Your task to perform on an android device: Show me some nice wallpapers for my tablet Image 0: 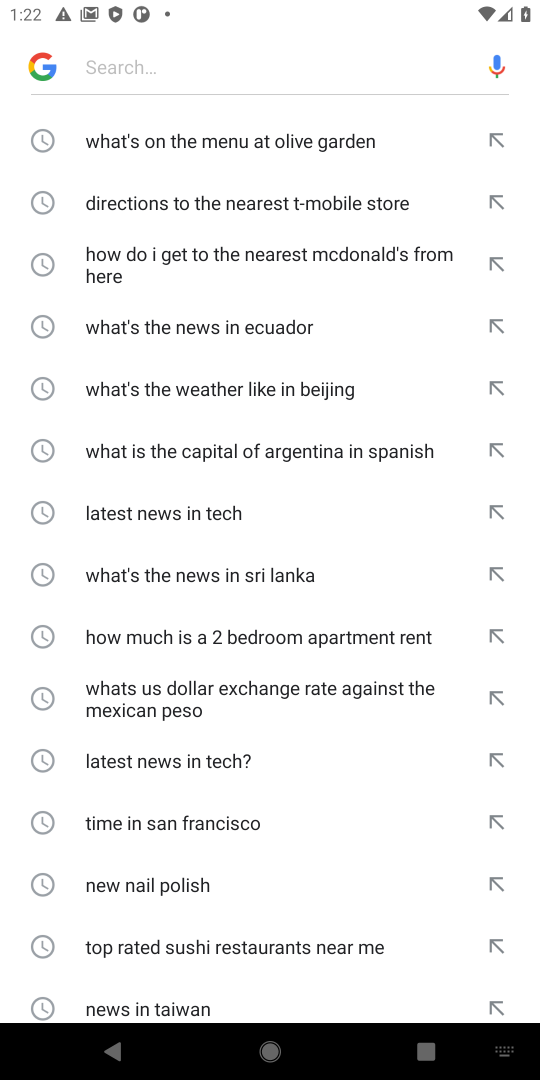
Step 0: click (302, 114)
Your task to perform on an android device: Show me some nice wallpapers for my tablet Image 1: 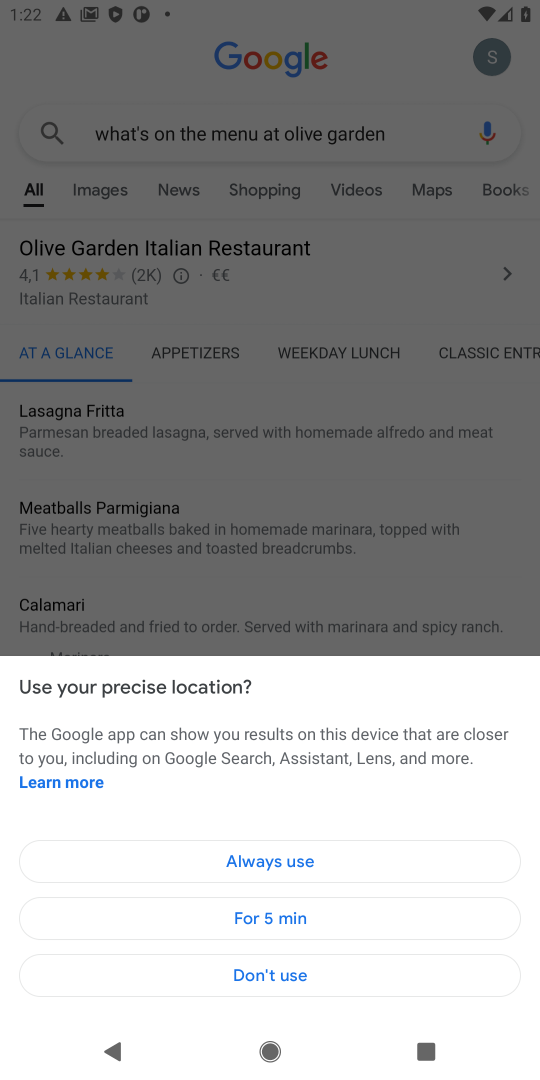
Step 1: press home button
Your task to perform on an android device: Show me some nice wallpapers for my tablet Image 2: 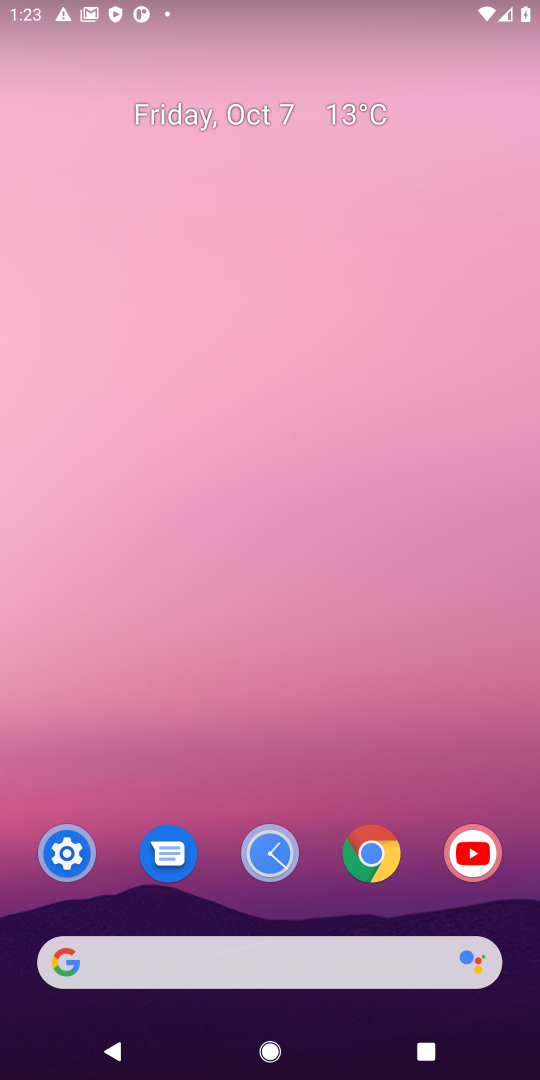
Step 2: click (350, 951)
Your task to perform on an android device: Show me some nice wallpapers for my tablet Image 3: 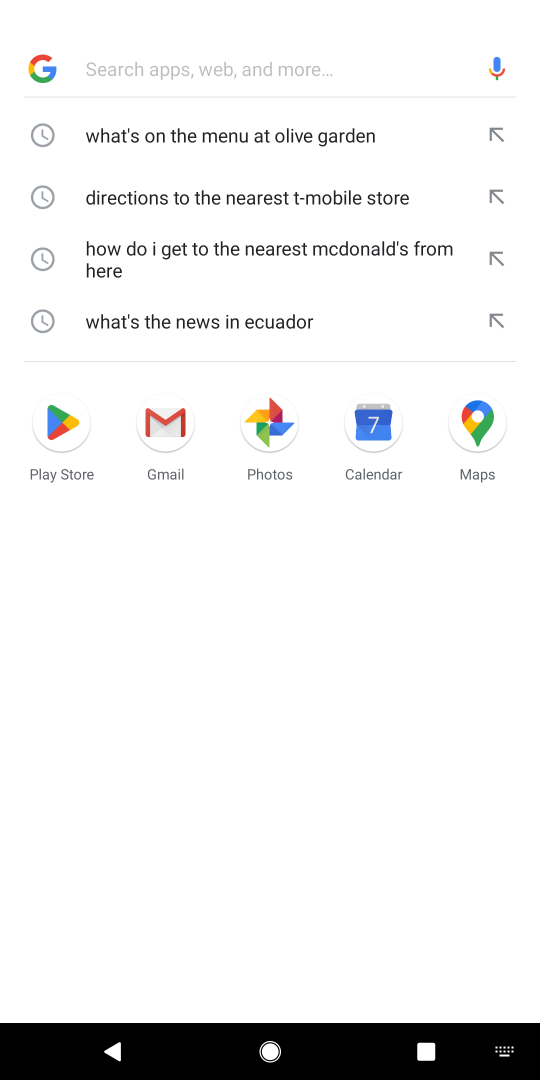
Step 3: type "Show me some nice wallpapers for my tablet"
Your task to perform on an android device: Show me some nice wallpapers for my tablet Image 4: 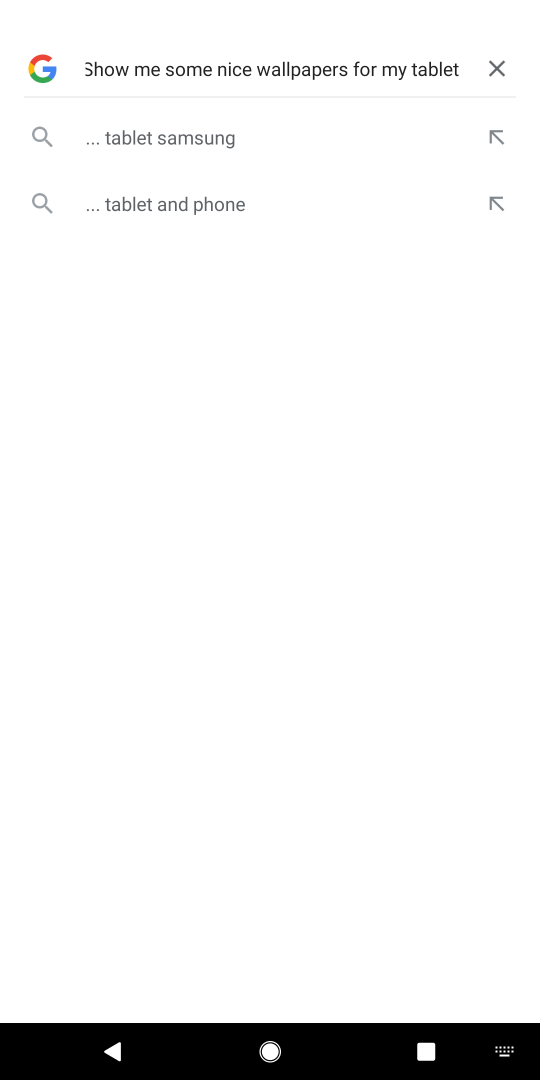
Step 4: click (257, 168)
Your task to perform on an android device: Show me some nice wallpapers for my tablet Image 5: 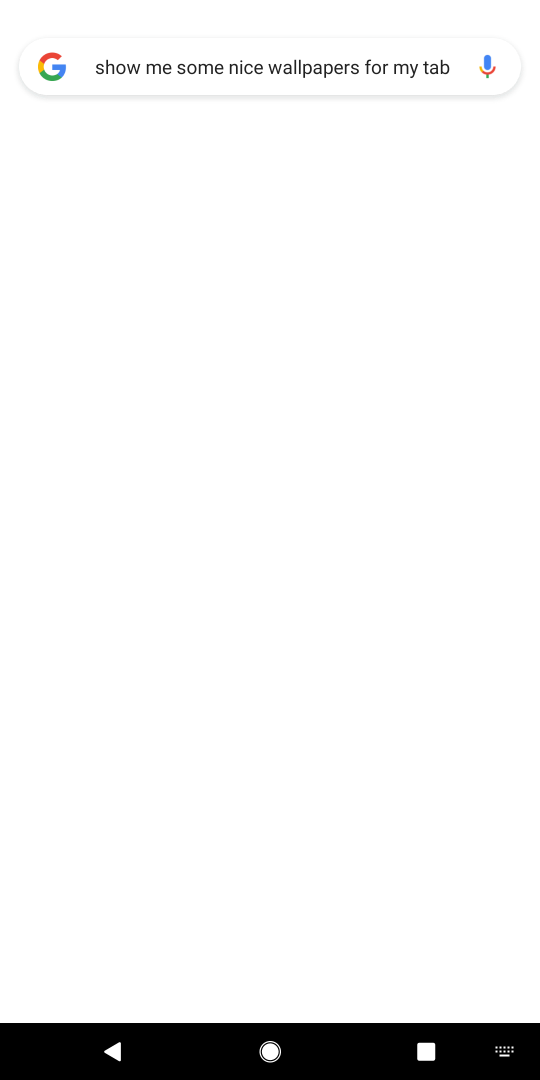
Step 5: task complete